Your task to perform on an android device: Do I have any events today? Image 0: 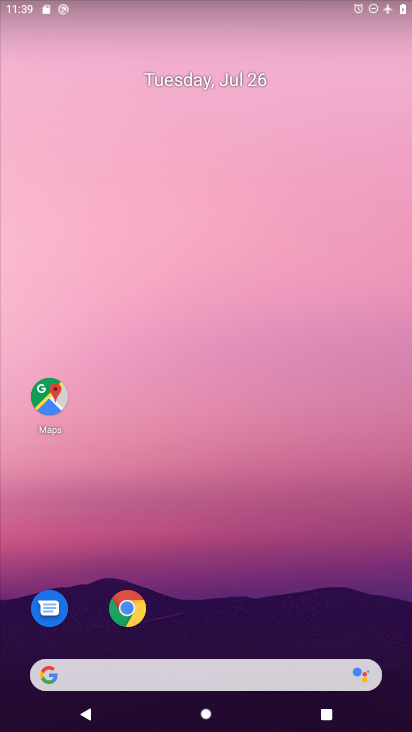
Step 0: drag from (336, 446) to (292, 0)
Your task to perform on an android device: Do I have any events today? Image 1: 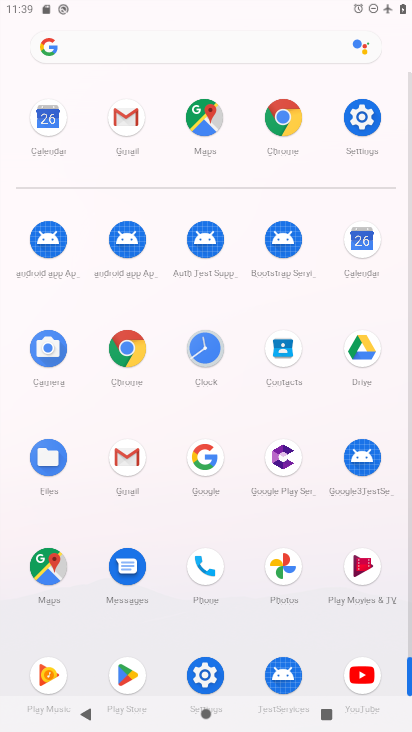
Step 1: click (366, 236)
Your task to perform on an android device: Do I have any events today? Image 2: 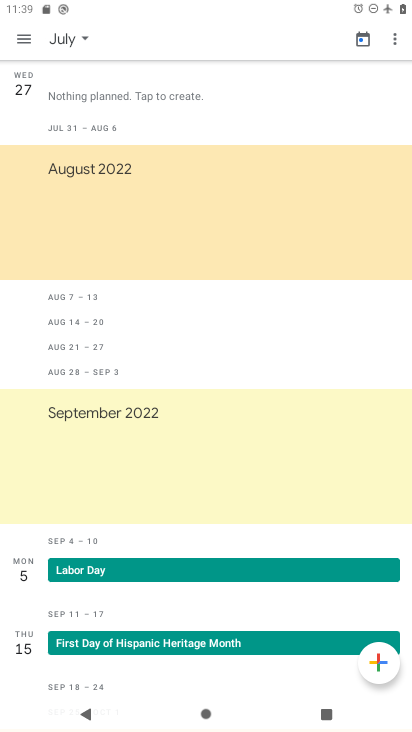
Step 2: click (64, 34)
Your task to perform on an android device: Do I have any events today? Image 3: 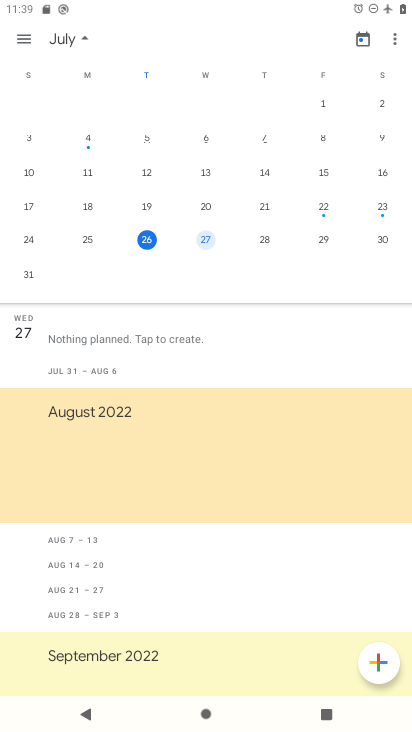
Step 3: click (149, 239)
Your task to perform on an android device: Do I have any events today? Image 4: 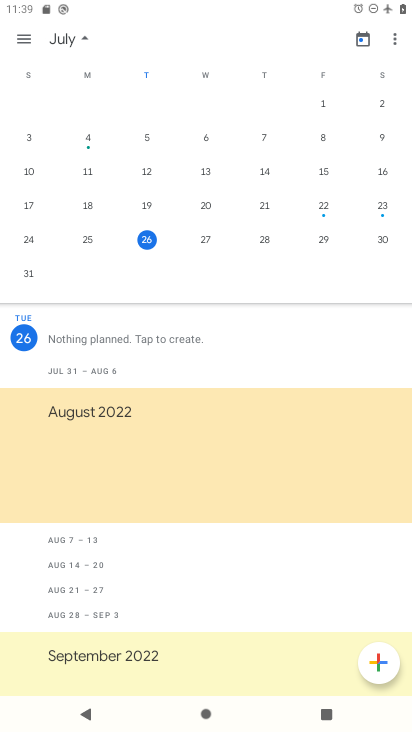
Step 4: task complete